Your task to perform on an android device: open app "Messages" (install if not already installed) and go to login screen Image 0: 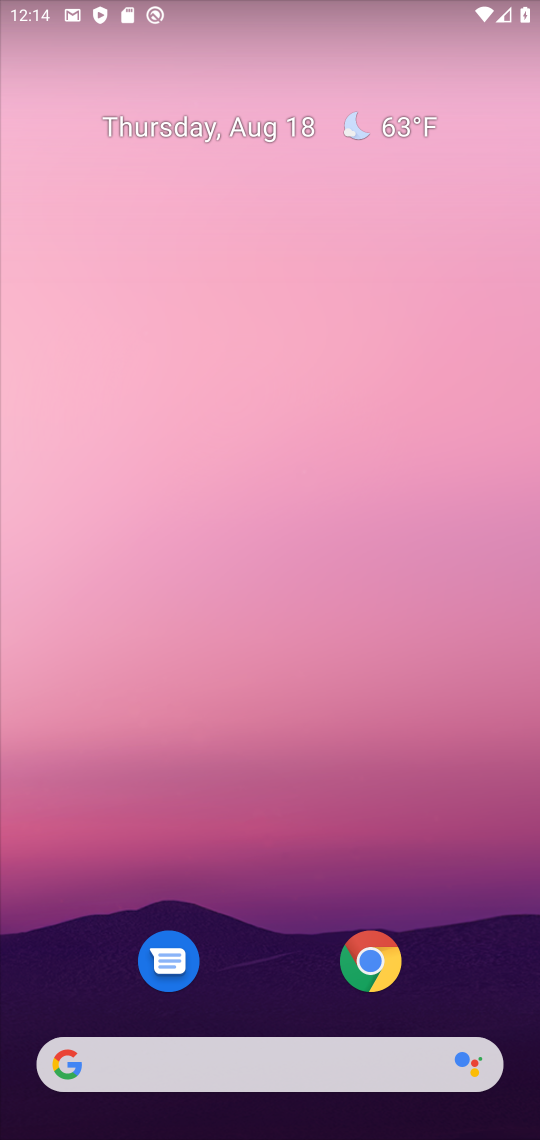
Step 0: drag from (265, 841) to (306, 243)
Your task to perform on an android device: open app "Messages" (install if not already installed) and go to login screen Image 1: 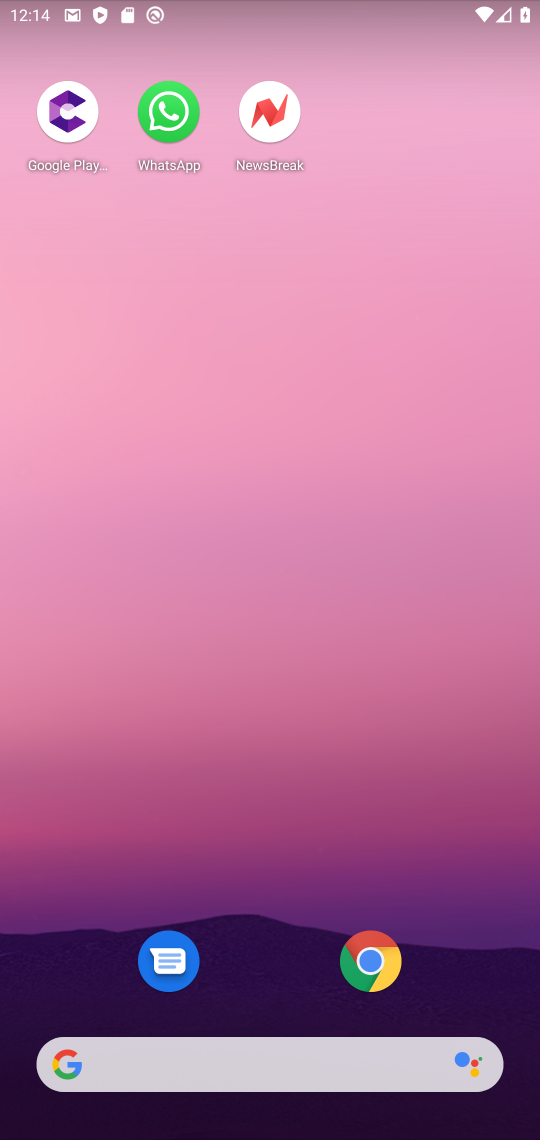
Step 1: drag from (321, 910) to (304, 384)
Your task to perform on an android device: open app "Messages" (install if not already installed) and go to login screen Image 2: 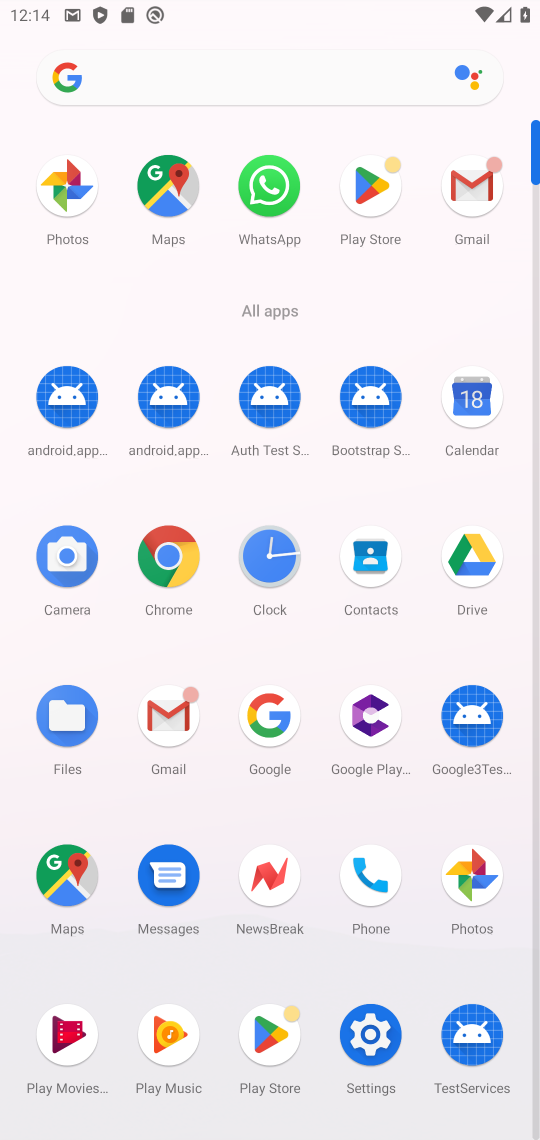
Step 2: click (383, 171)
Your task to perform on an android device: open app "Messages" (install if not already installed) and go to login screen Image 3: 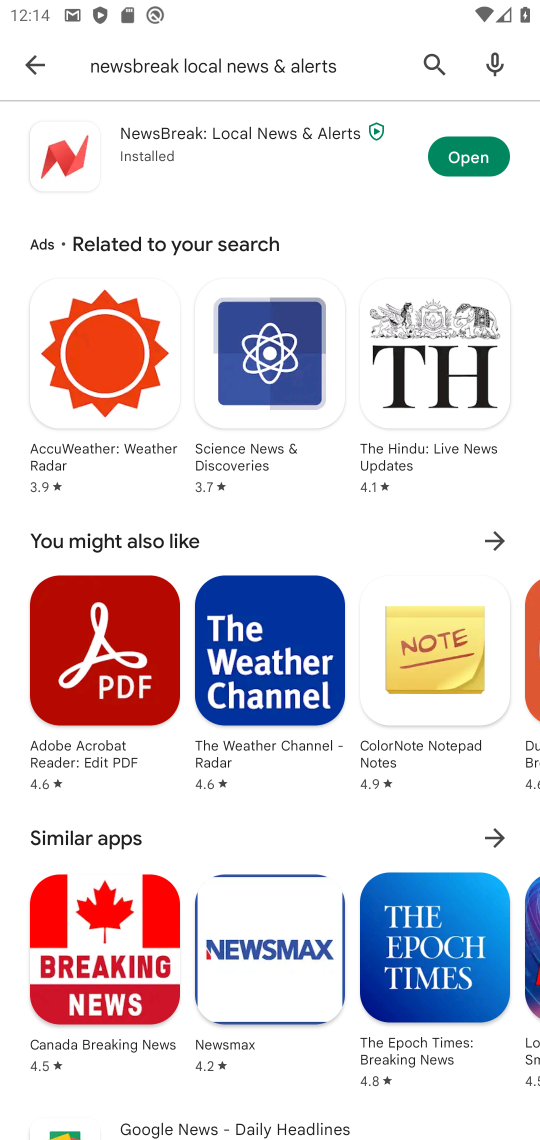
Step 3: click (29, 42)
Your task to perform on an android device: open app "Messages" (install if not already installed) and go to login screen Image 4: 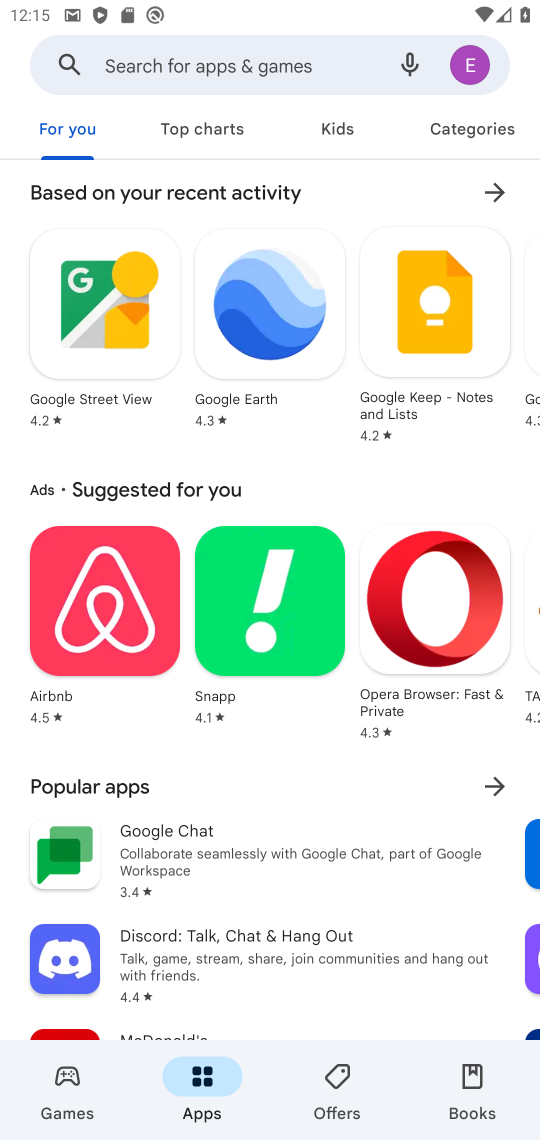
Step 4: click (250, 54)
Your task to perform on an android device: open app "Messages" (install if not already installed) and go to login screen Image 5: 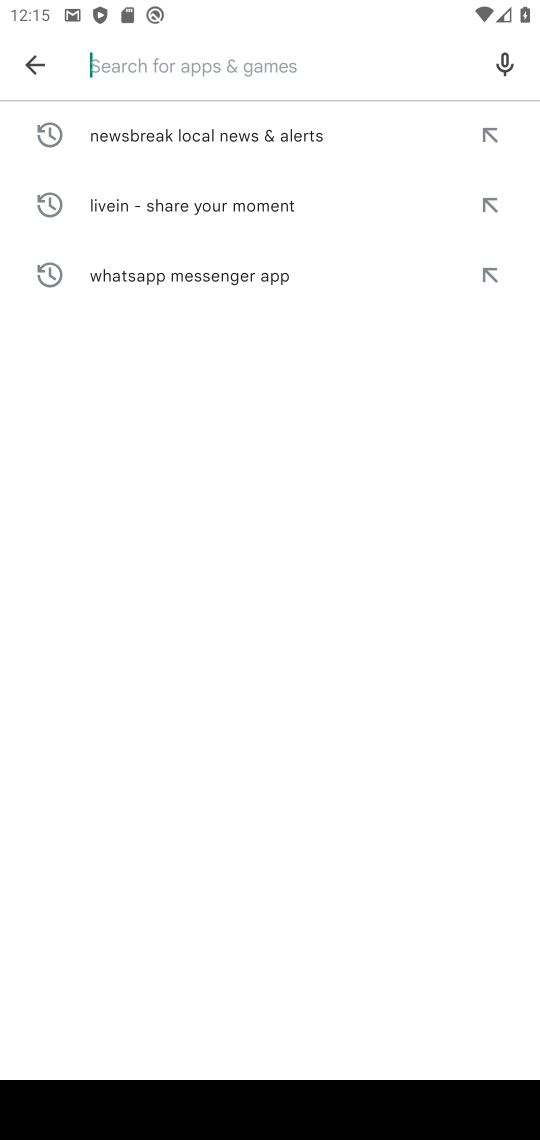
Step 5: click (271, 119)
Your task to perform on an android device: open app "Messages" (install if not already installed) and go to login screen Image 6: 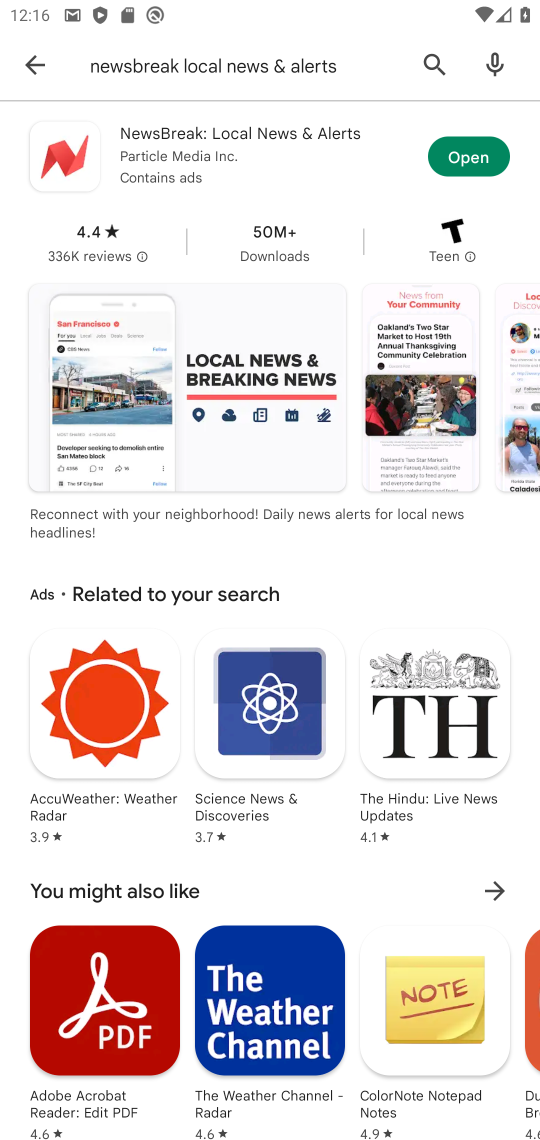
Step 6: click (54, 80)
Your task to perform on an android device: open app "Messages" (install if not already installed) and go to login screen Image 7: 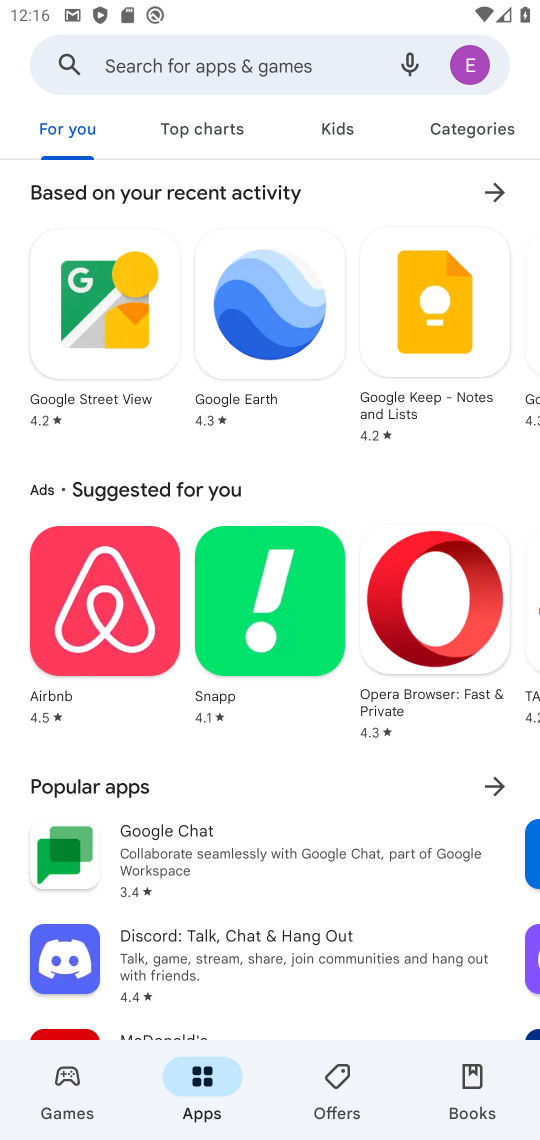
Step 7: click (272, 54)
Your task to perform on an android device: open app "Messages" (install if not already installed) and go to login screen Image 8: 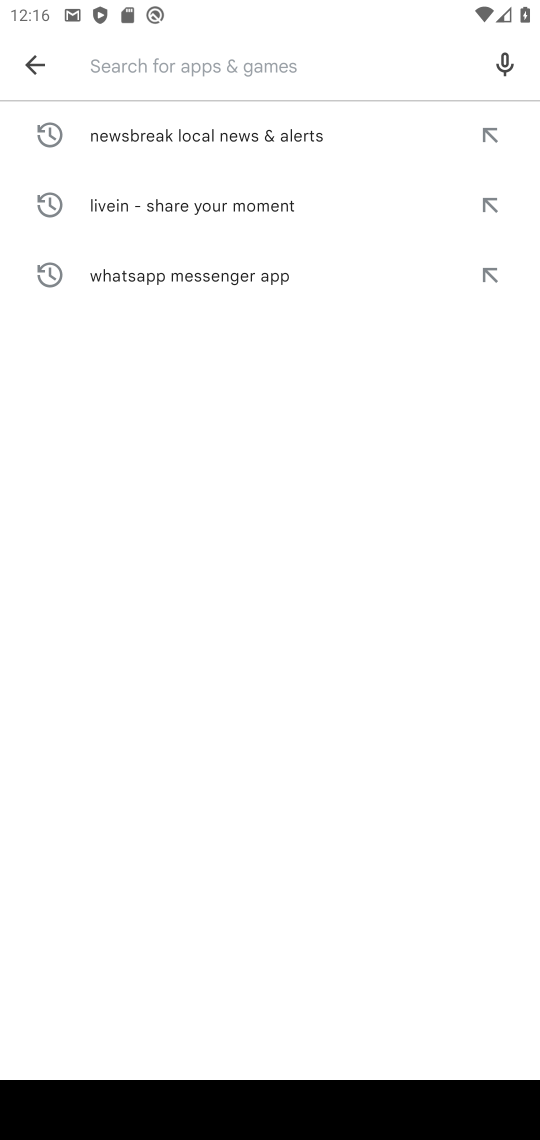
Step 8: type "messages "
Your task to perform on an android device: open app "Messages" (install if not already installed) and go to login screen Image 9: 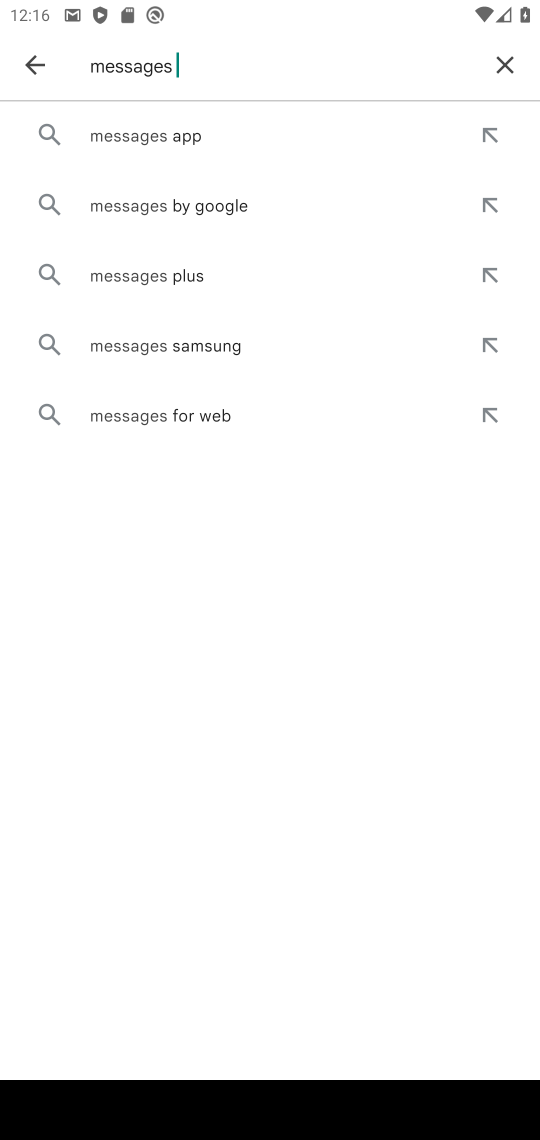
Step 9: click (131, 138)
Your task to perform on an android device: open app "Messages" (install if not already installed) and go to login screen Image 10: 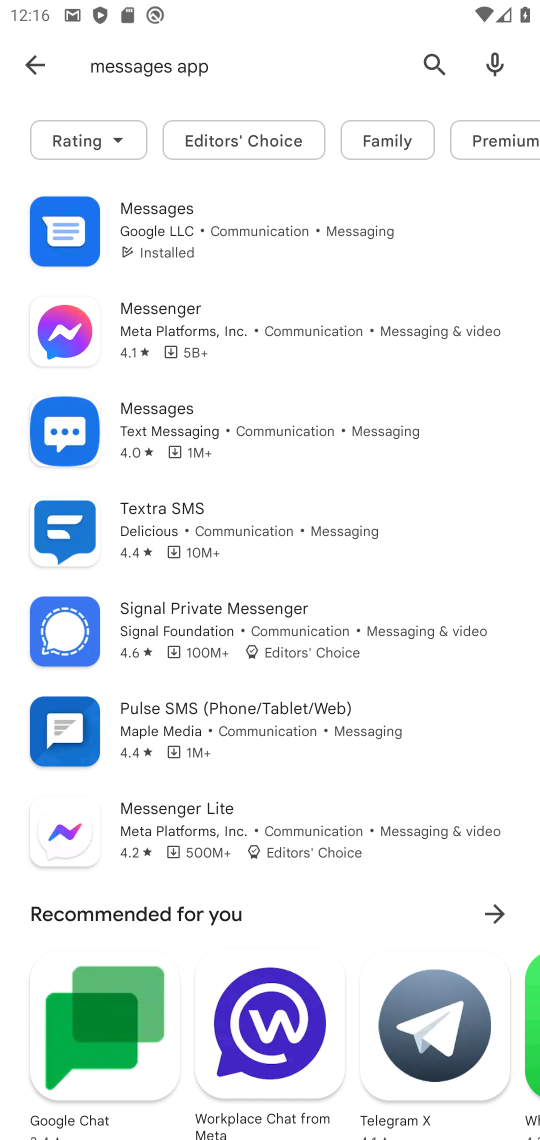
Step 10: click (175, 235)
Your task to perform on an android device: open app "Messages" (install if not already installed) and go to login screen Image 11: 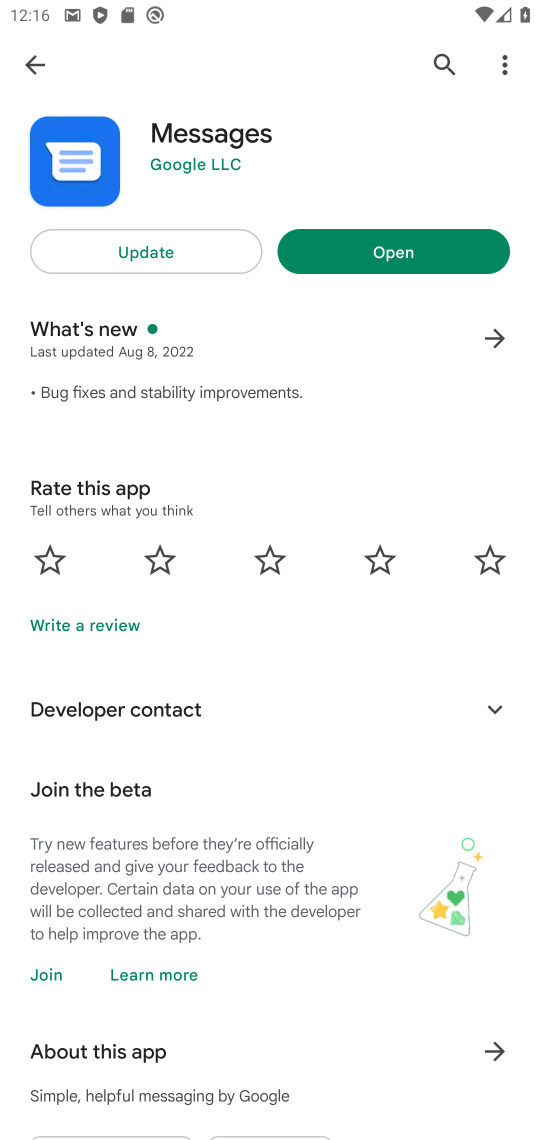
Step 11: click (440, 253)
Your task to perform on an android device: open app "Messages" (install if not already installed) and go to login screen Image 12: 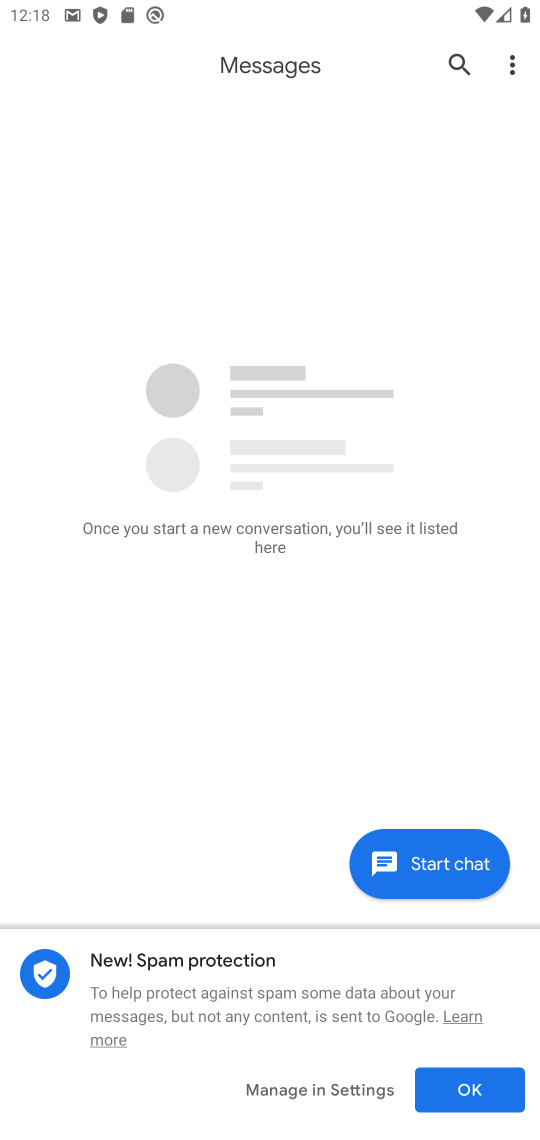
Step 12: task complete